Your task to perform on an android device: Open Chrome and go to the settings page Image 0: 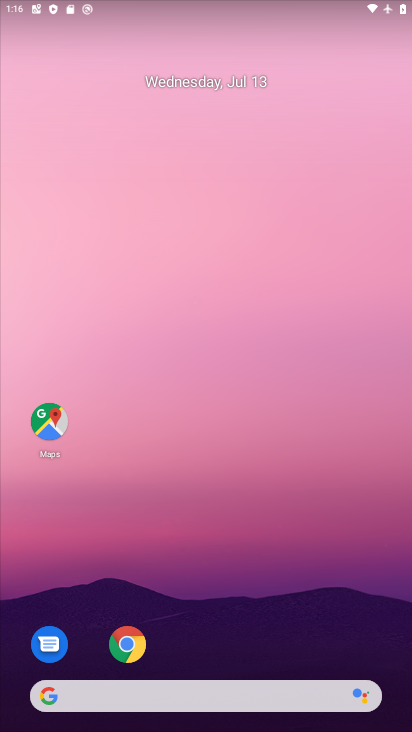
Step 0: drag from (327, 629) to (289, 64)
Your task to perform on an android device: Open Chrome and go to the settings page Image 1: 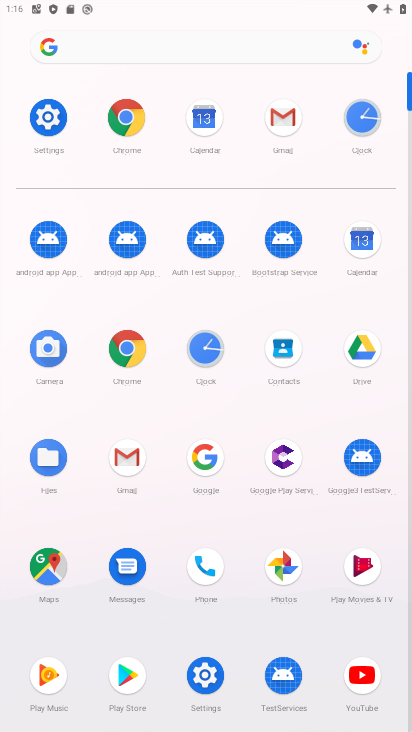
Step 1: click (128, 111)
Your task to perform on an android device: Open Chrome and go to the settings page Image 2: 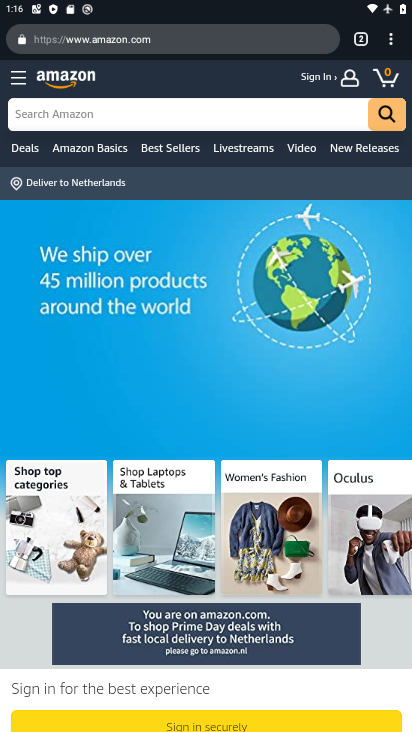
Step 2: task complete